Your task to perform on an android device: Find coffee shops on Maps Image 0: 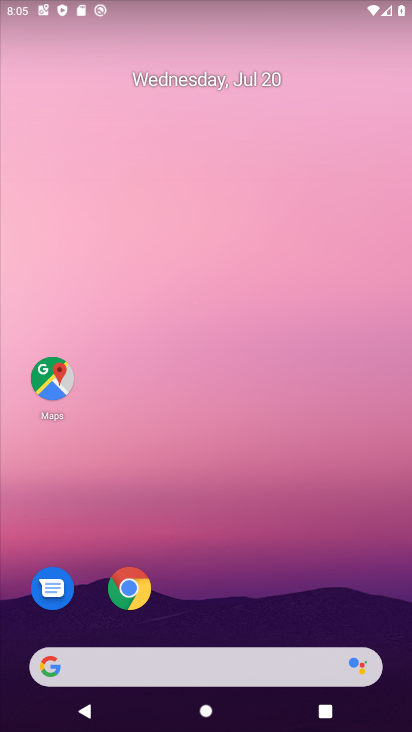
Step 0: click (59, 373)
Your task to perform on an android device: Find coffee shops on Maps Image 1: 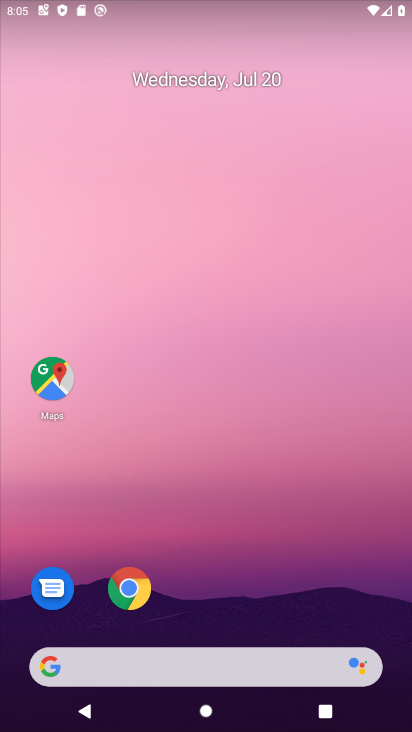
Step 1: click (59, 373)
Your task to perform on an android device: Find coffee shops on Maps Image 2: 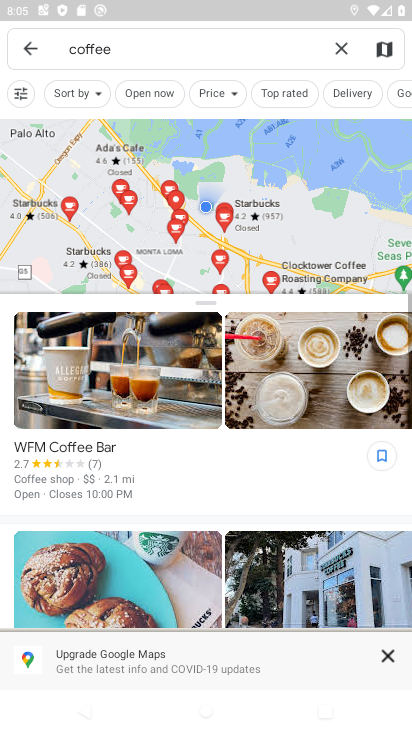
Step 2: click (343, 47)
Your task to perform on an android device: Find coffee shops on Maps Image 3: 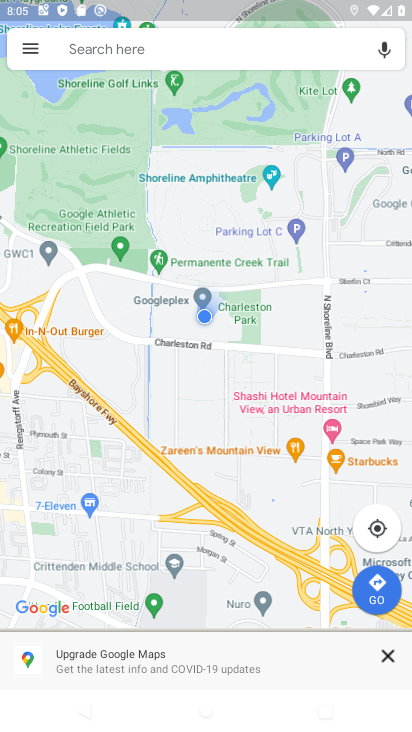
Step 3: click (208, 49)
Your task to perform on an android device: Find coffee shops on Maps Image 4: 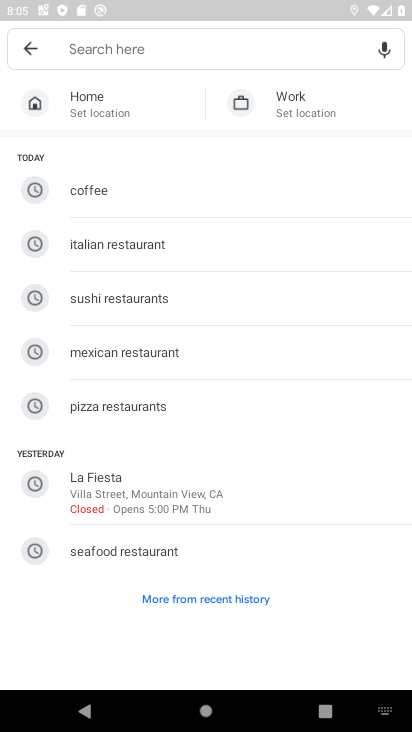
Step 4: type "coffee shop"
Your task to perform on an android device: Find coffee shops on Maps Image 5: 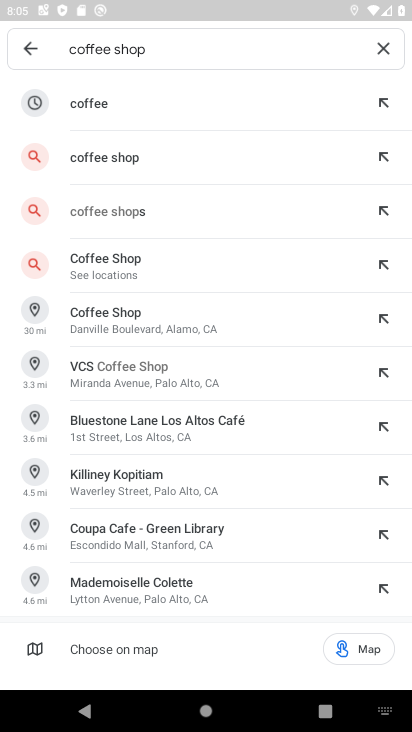
Step 5: click (157, 217)
Your task to perform on an android device: Find coffee shops on Maps Image 6: 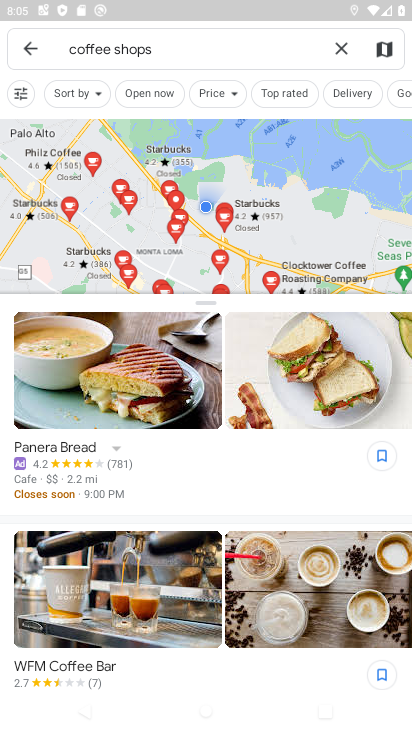
Step 6: task complete